Your task to perform on an android device: toggle airplane mode Image 0: 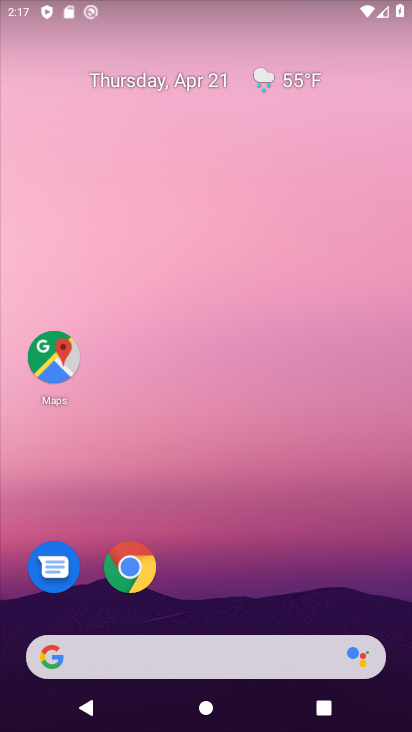
Step 0: drag from (288, 609) to (262, 723)
Your task to perform on an android device: toggle airplane mode Image 1: 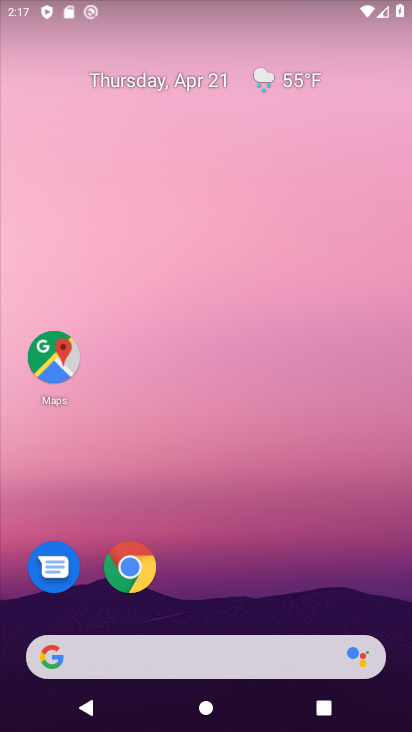
Step 1: drag from (320, 7) to (299, 474)
Your task to perform on an android device: toggle airplane mode Image 2: 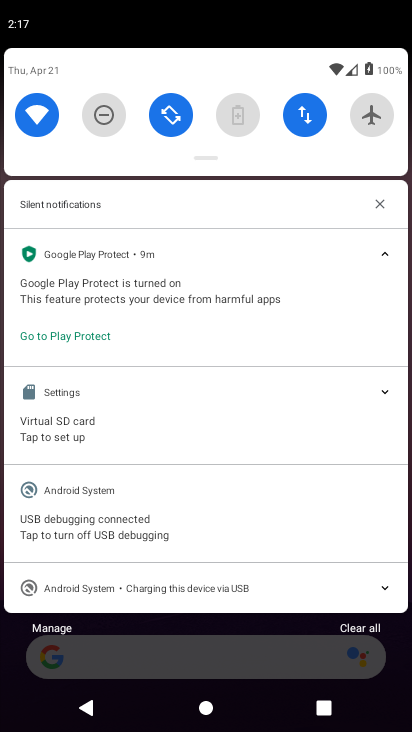
Step 2: drag from (265, 139) to (241, 576)
Your task to perform on an android device: toggle airplane mode Image 3: 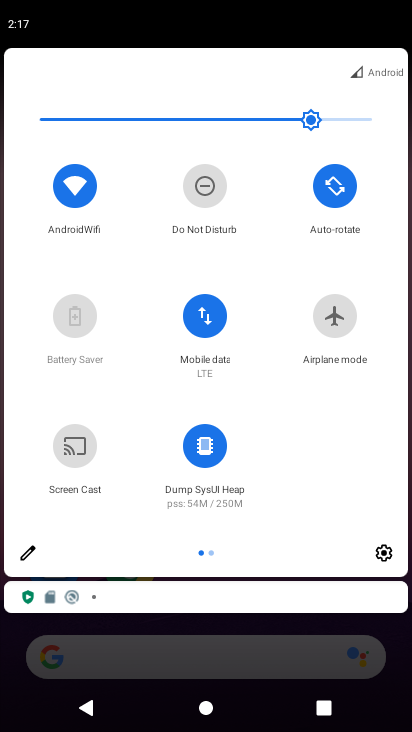
Step 3: click (332, 314)
Your task to perform on an android device: toggle airplane mode Image 4: 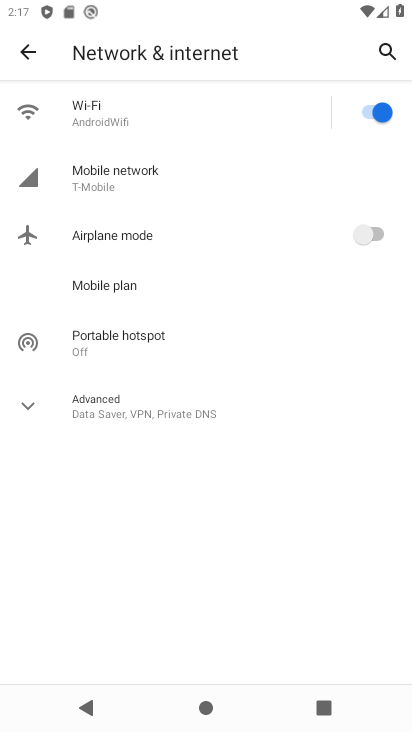
Step 4: click (383, 230)
Your task to perform on an android device: toggle airplane mode Image 5: 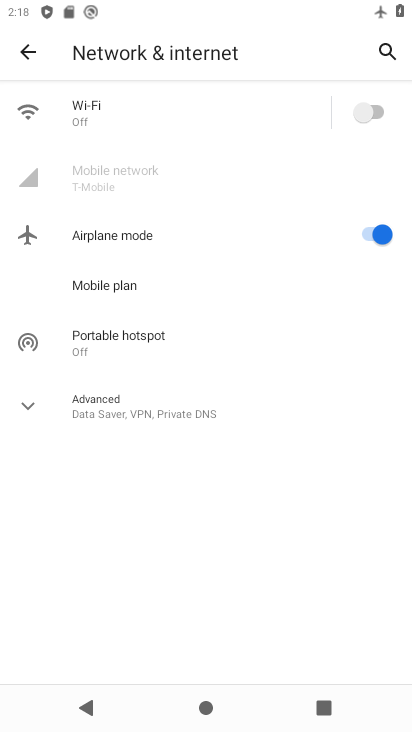
Step 5: task complete